Your task to perform on an android device: allow cookies in the chrome app Image 0: 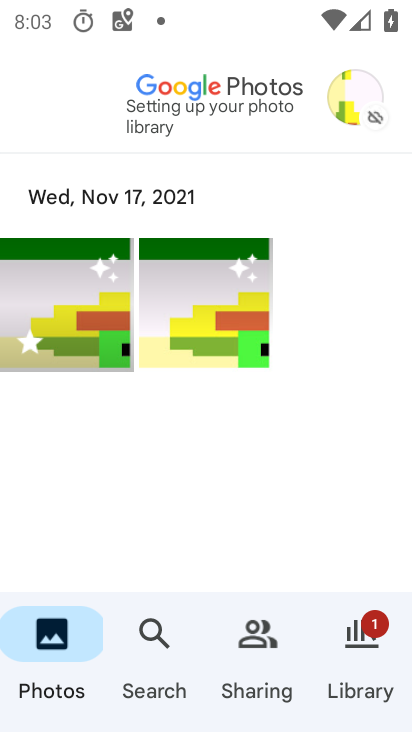
Step 0: press home button
Your task to perform on an android device: allow cookies in the chrome app Image 1: 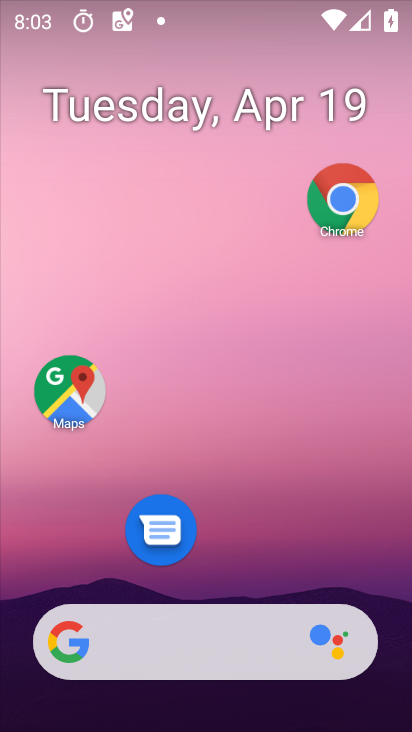
Step 1: drag from (237, 403) to (301, 183)
Your task to perform on an android device: allow cookies in the chrome app Image 2: 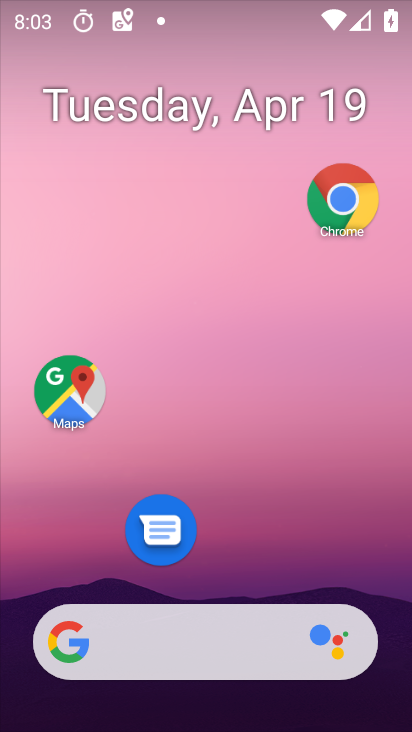
Step 2: click (344, 191)
Your task to perform on an android device: allow cookies in the chrome app Image 3: 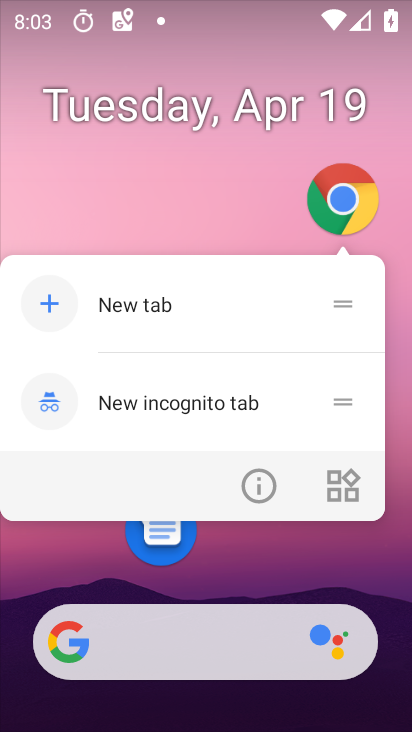
Step 3: click (250, 499)
Your task to perform on an android device: allow cookies in the chrome app Image 4: 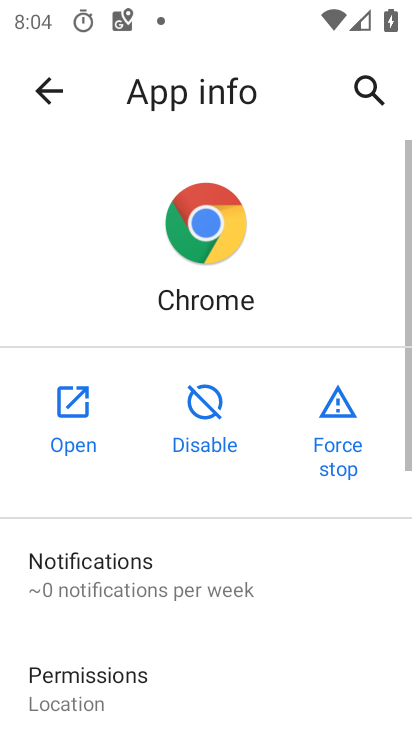
Step 4: click (93, 393)
Your task to perform on an android device: allow cookies in the chrome app Image 5: 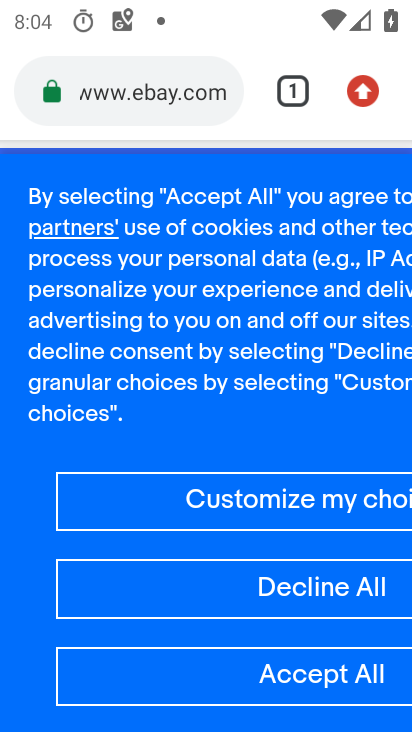
Step 5: click (377, 94)
Your task to perform on an android device: allow cookies in the chrome app Image 6: 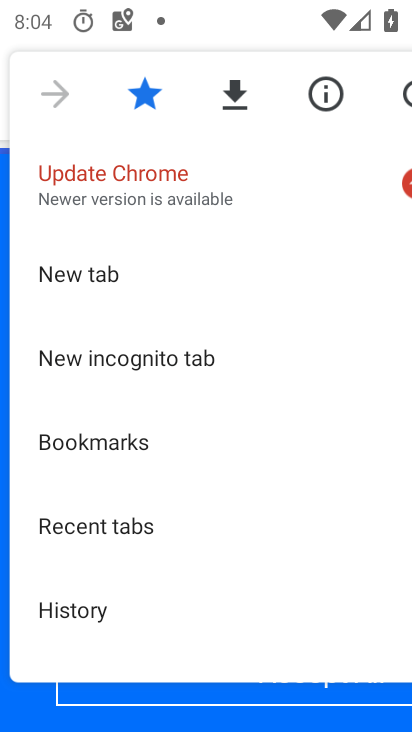
Step 6: drag from (211, 506) to (290, 179)
Your task to perform on an android device: allow cookies in the chrome app Image 7: 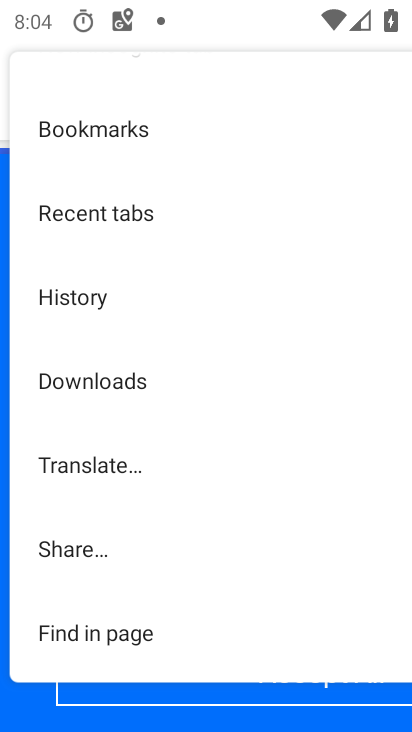
Step 7: drag from (135, 586) to (251, 163)
Your task to perform on an android device: allow cookies in the chrome app Image 8: 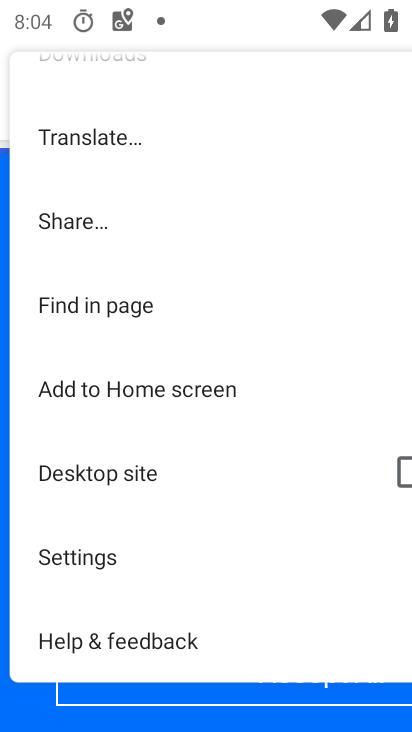
Step 8: click (111, 565)
Your task to perform on an android device: allow cookies in the chrome app Image 9: 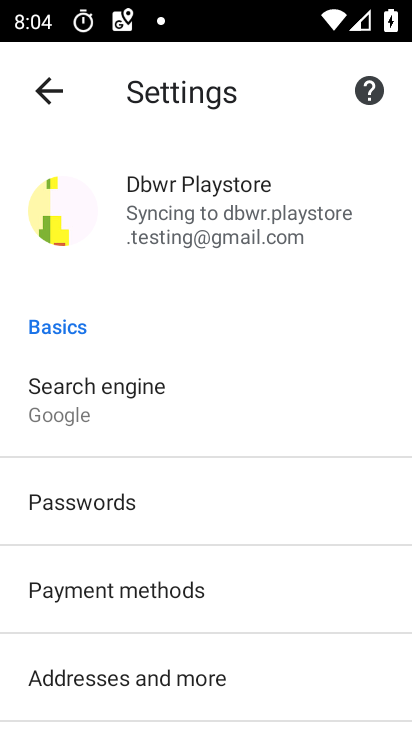
Step 9: drag from (223, 620) to (353, 248)
Your task to perform on an android device: allow cookies in the chrome app Image 10: 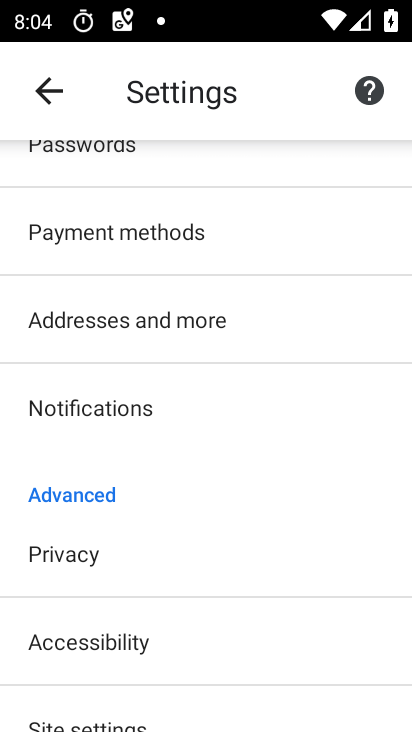
Step 10: drag from (160, 590) to (238, 246)
Your task to perform on an android device: allow cookies in the chrome app Image 11: 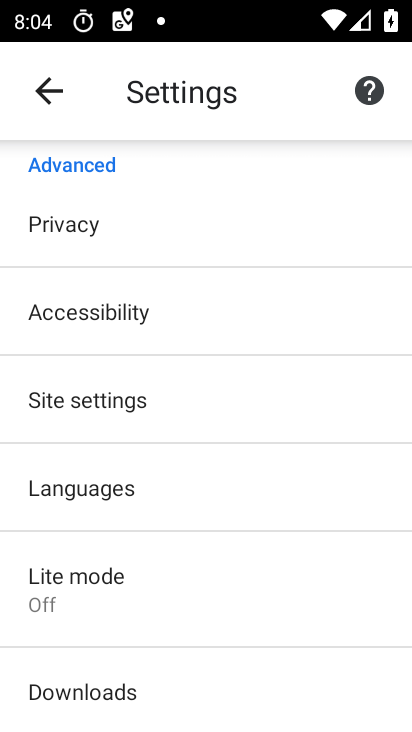
Step 11: click (185, 391)
Your task to perform on an android device: allow cookies in the chrome app Image 12: 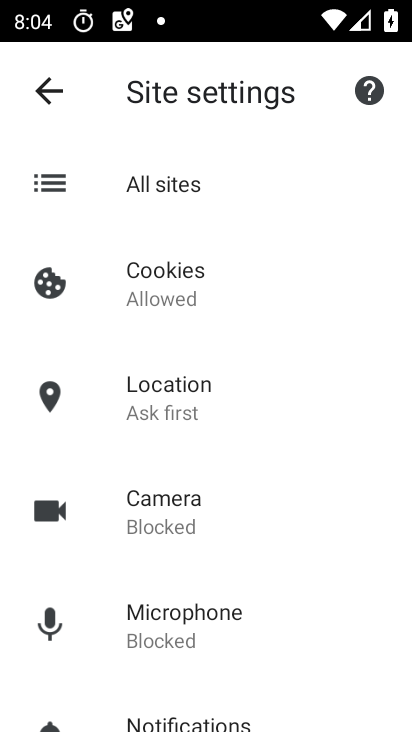
Step 12: click (251, 291)
Your task to perform on an android device: allow cookies in the chrome app Image 13: 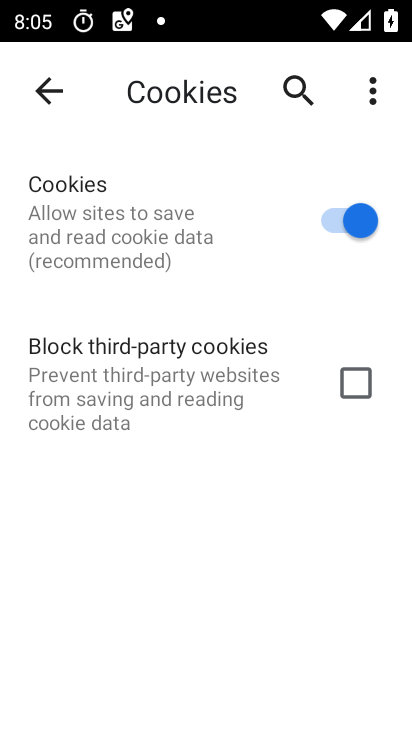
Step 13: task complete